Your task to perform on an android device: Go to calendar. Show me events next week Image 0: 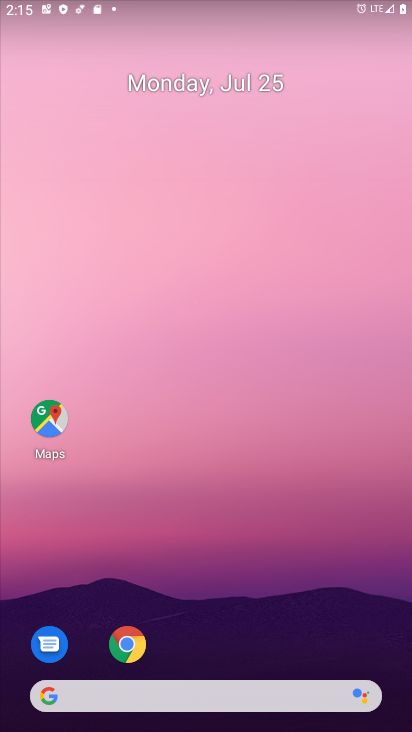
Step 0: drag from (353, 640) to (181, 32)
Your task to perform on an android device: Go to calendar. Show me events next week Image 1: 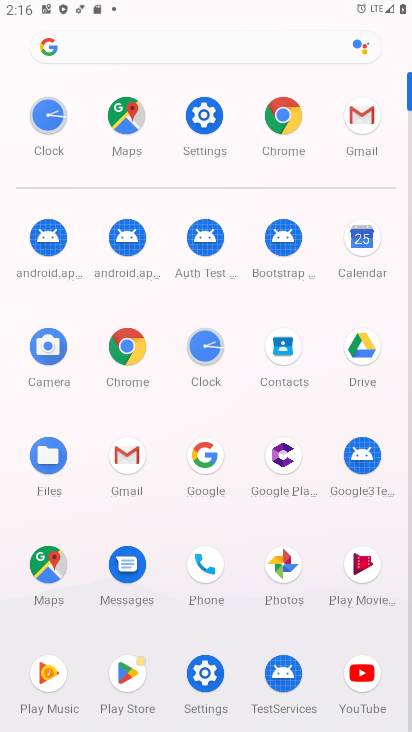
Step 1: click (357, 238)
Your task to perform on an android device: Go to calendar. Show me events next week Image 2: 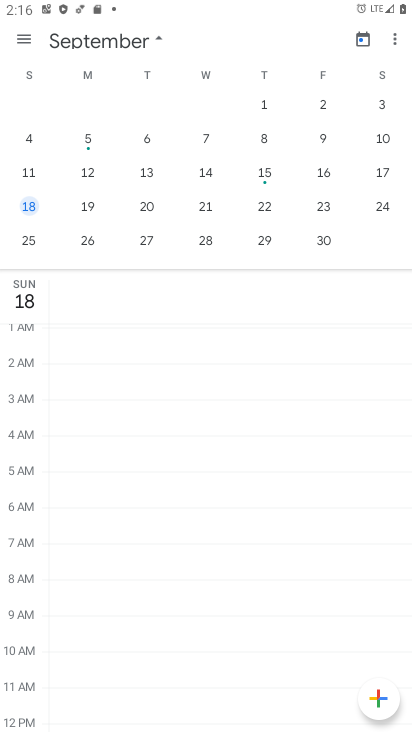
Step 2: task complete